Your task to perform on an android device: Go to wifi settings Image 0: 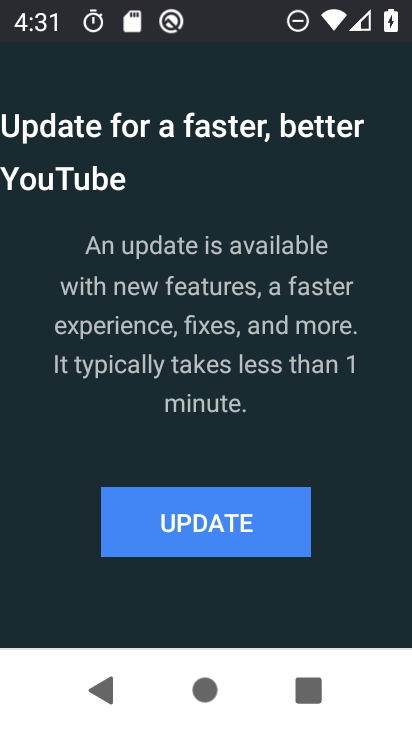
Step 0: press home button
Your task to perform on an android device: Go to wifi settings Image 1: 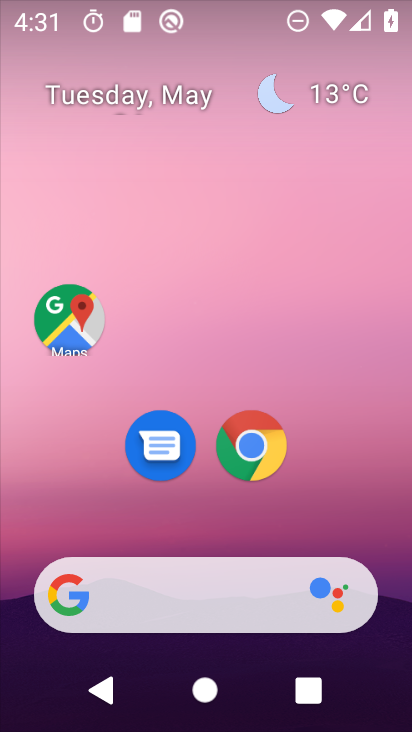
Step 1: drag from (211, 525) to (234, 58)
Your task to perform on an android device: Go to wifi settings Image 2: 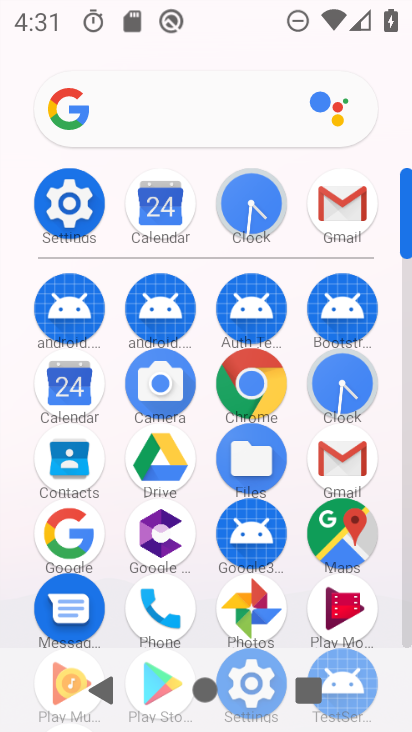
Step 2: click (60, 189)
Your task to perform on an android device: Go to wifi settings Image 3: 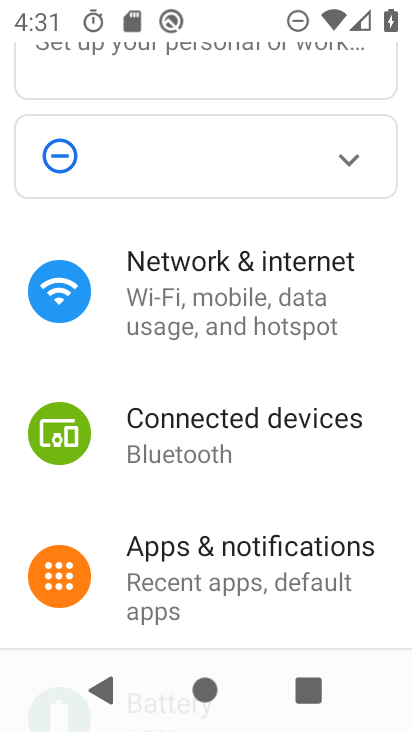
Step 3: click (205, 304)
Your task to perform on an android device: Go to wifi settings Image 4: 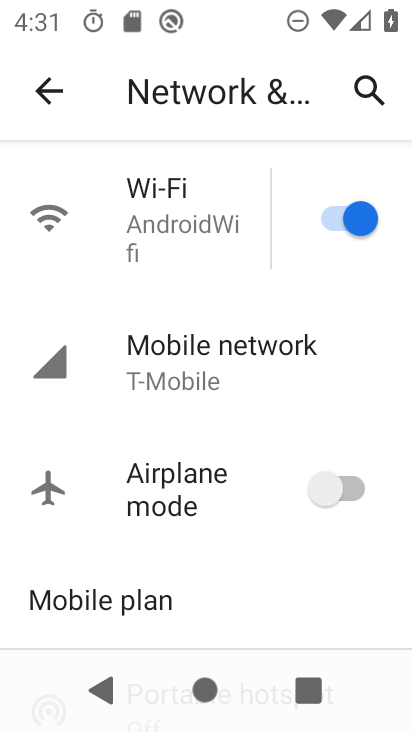
Step 4: click (210, 247)
Your task to perform on an android device: Go to wifi settings Image 5: 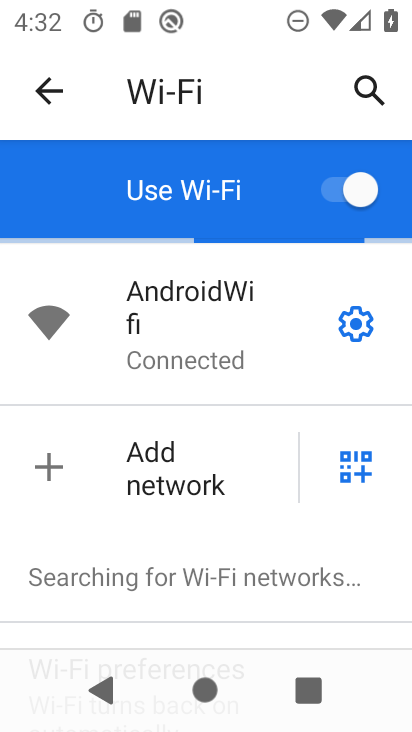
Step 5: task complete